Your task to perform on an android device: Open settings on Google Maps Image 0: 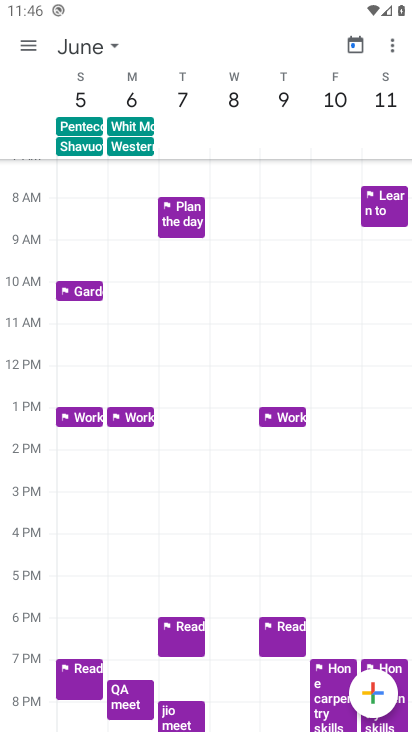
Step 0: press home button
Your task to perform on an android device: Open settings on Google Maps Image 1: 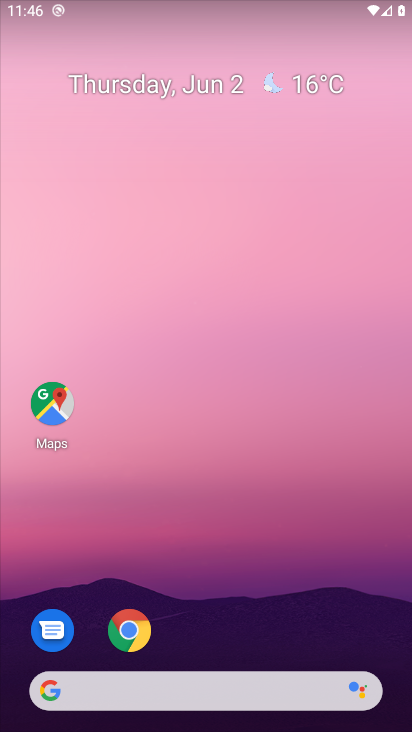
Step 1: drag from (211, 638) to (335, 12)
Your task to perform on an android device: Open settings on Google Maps Image 2: 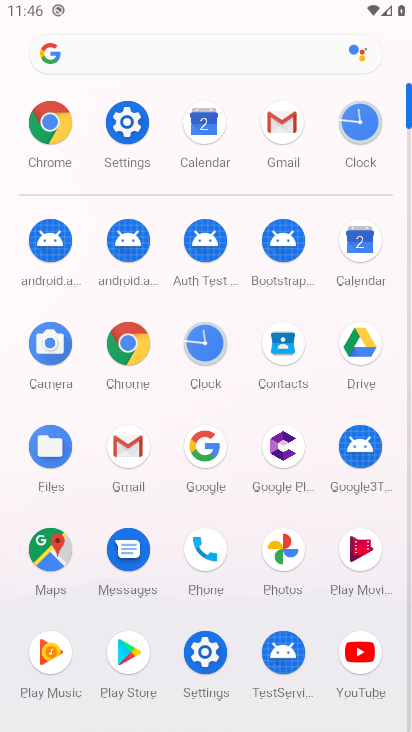
Step 2: click (135, 132)
Your task to perform on an android device: Open settings on Google Maps Image 3: 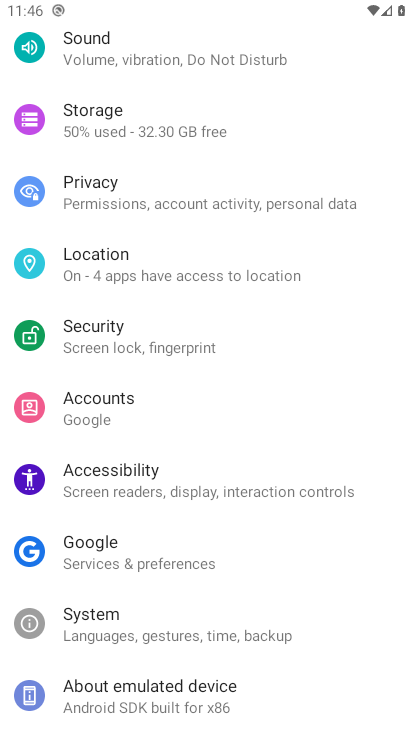
Step 3: press home button
Your task to perform on an android device: Open settings on Google Maps Image 4: 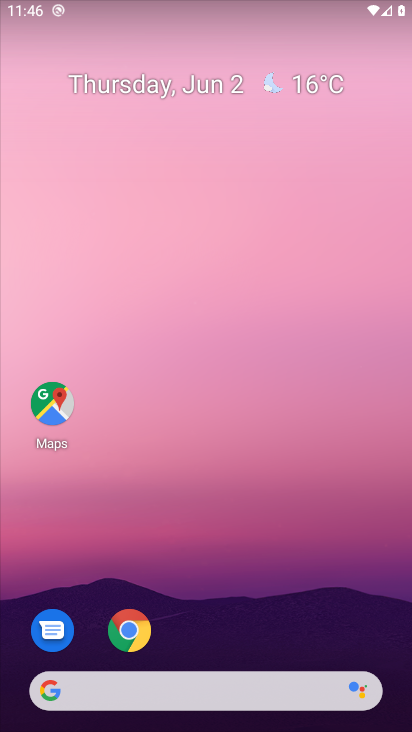
Step 4: drag from (198, 639) to (247, 71)
Your task to perform on an android device: Open settings on Google Maps Image 5: 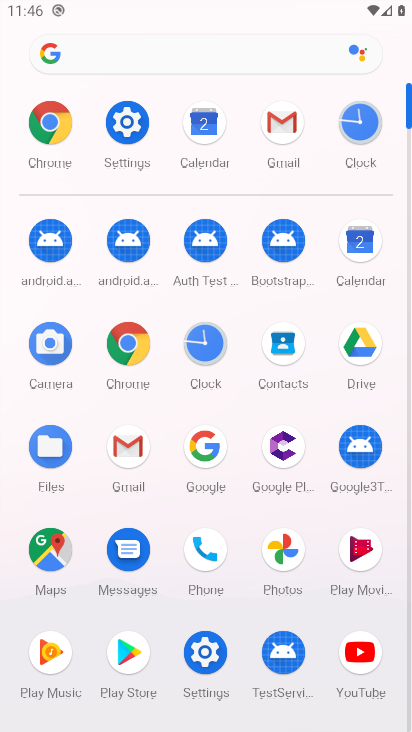
Step 5: click (55, 565)
Your task to perform on an android device: Open settings on Google Maps Image 6: 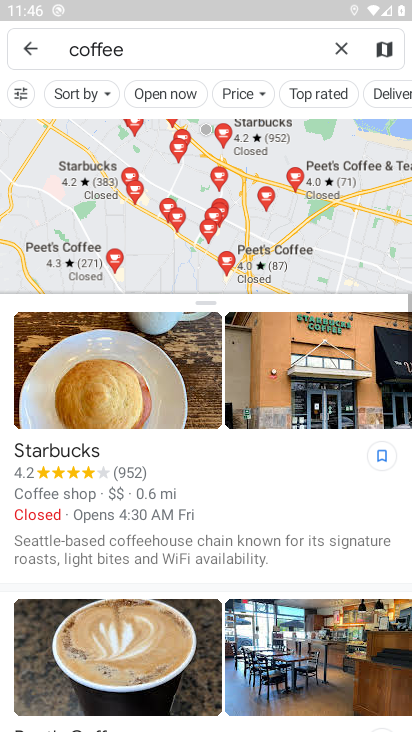
Step 6: click (31, 48)
Your task to perform on an android device: Open settings on Google Maps Image 7: 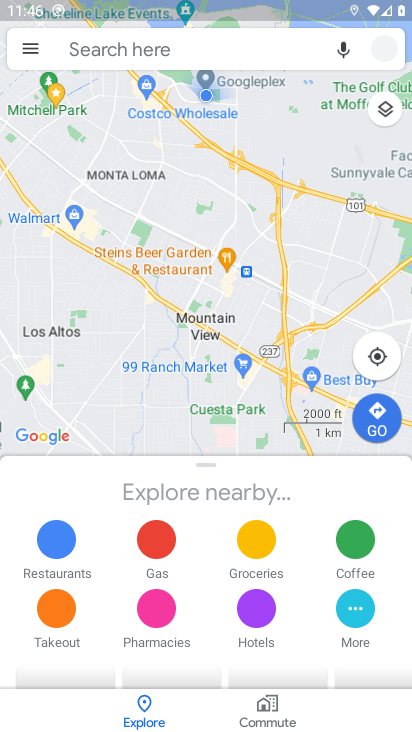
Step 7: click (31, 48)
Your task to perform on an android device: Open settings on Google Maps Image 8: 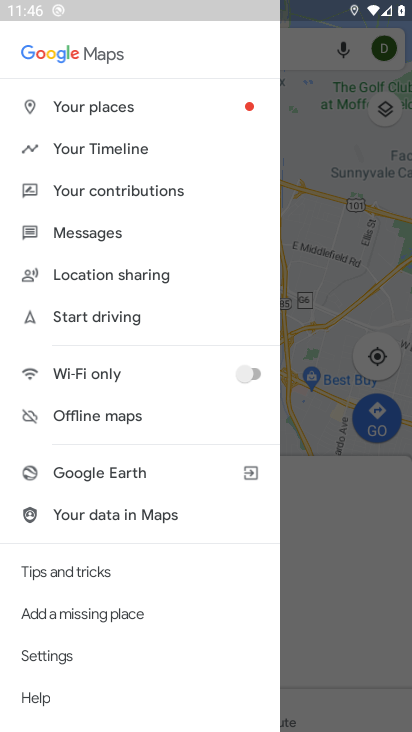
Step 8: click (52, 659)
Your task to perform on an android device: Open settings on Google Maps Image 9: 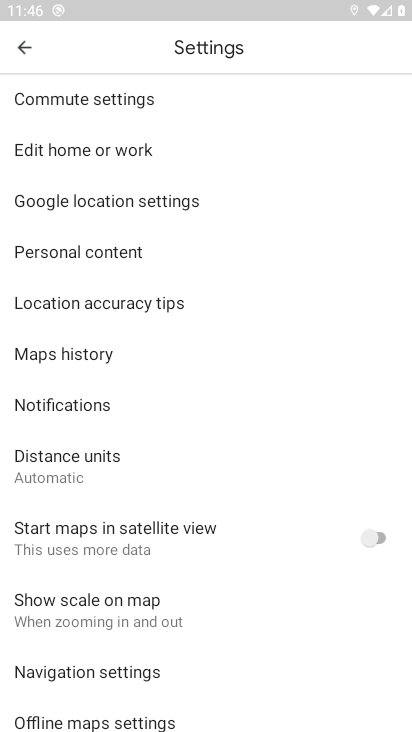
Step 9: task complete